Your task to perform on an android device: Open Google Maps and go to "Timeline" Image 0: 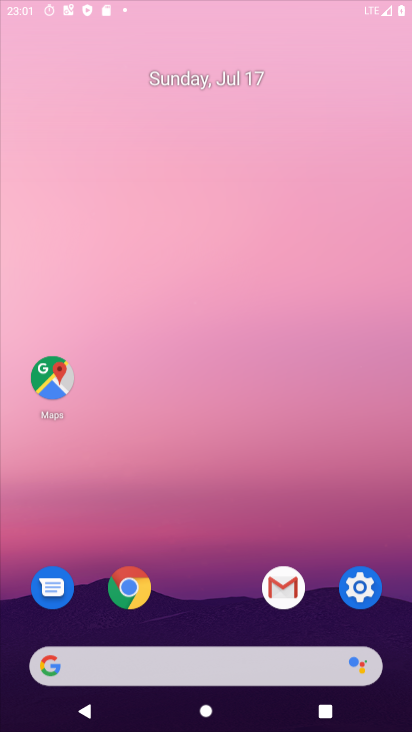
Step 0: press home button
Your task to perform on an android device: Open Google Maps and go to "Timeline" Image 1: 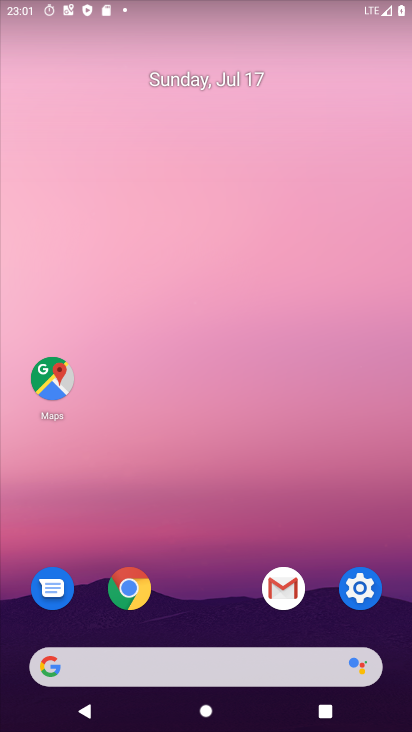
Step 1: click (40, 383)
Your task to perform on an android device: Open Google Maps and go to "Timeline" Image 2: 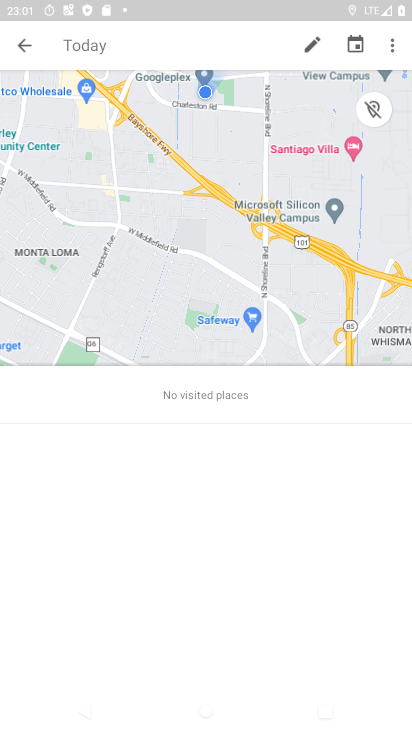
Step 2: click (29, 44)
Your task to perform on an android device: Open Google Maps and go to "Timeline" Image 3: 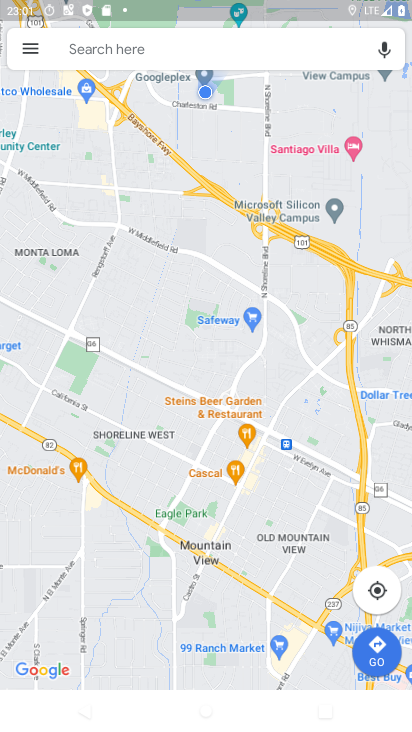
Step 3: click (27, 46)
Your task to perform on an android device: Open Google Maps and go to "Timeline" Image 4: 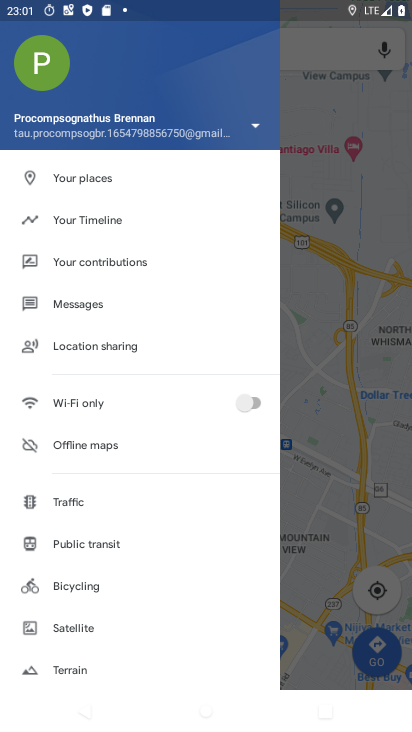
Step 4: click (112, 217)
Your task to perform on an android device: Open Google Maps and go to "Timeline" Image 5: 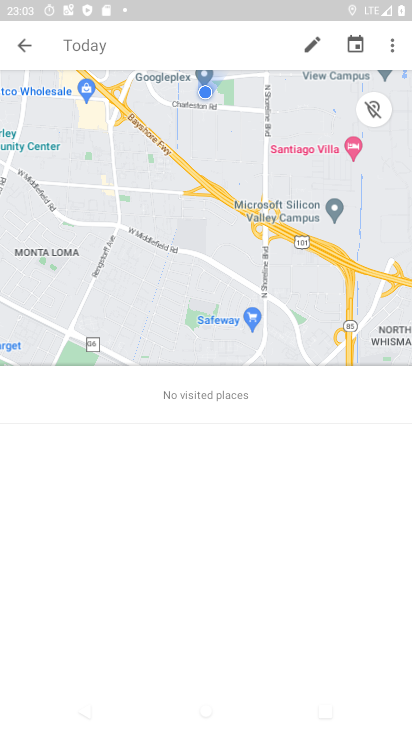
Step 5: task complete